Your task to perform on an android device: Open Google Maps and go to "Timeline" Image 0: 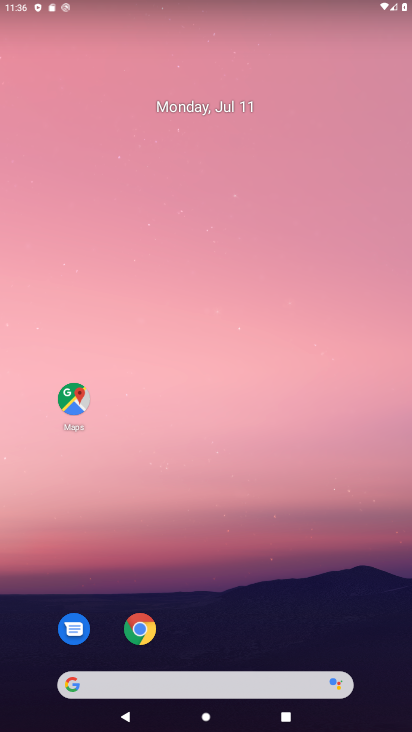
Step 0: drag from (334, 626) to (349, 107)
Your task to perform on an android device: Open Google Maps and go to "Timeline" Image 1: 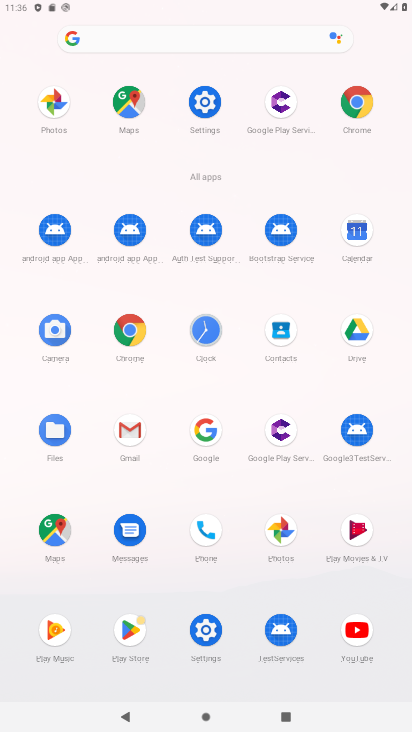
Step 1: click (58, 534)
Your task to perform on an android device: Open Google Maps and go to "Timeline" Image 2: 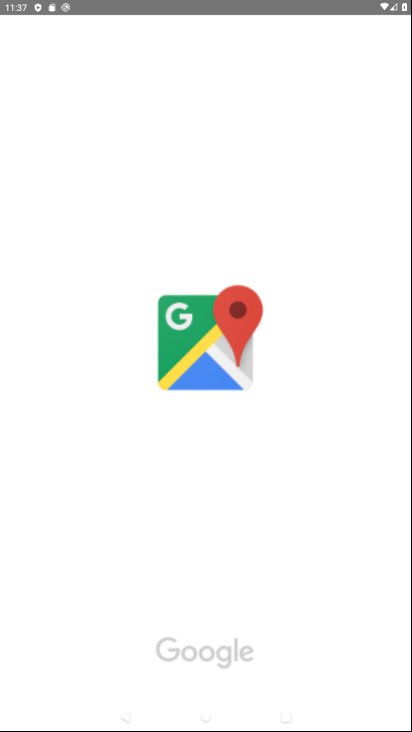
Step 2: task complete